Your task to perform on an android device: turn smart compose on in the gmail app Image 0: 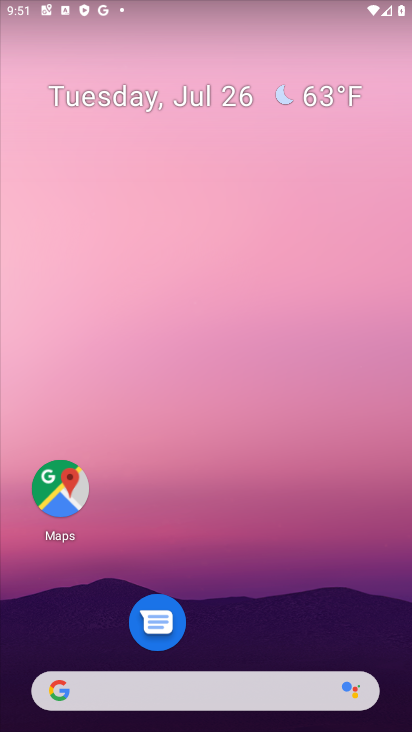
Step 0: drag from (245, 651) to (247, 247)
Your task to perform on an android device: turn smart compose on in the gmail app Image 1: 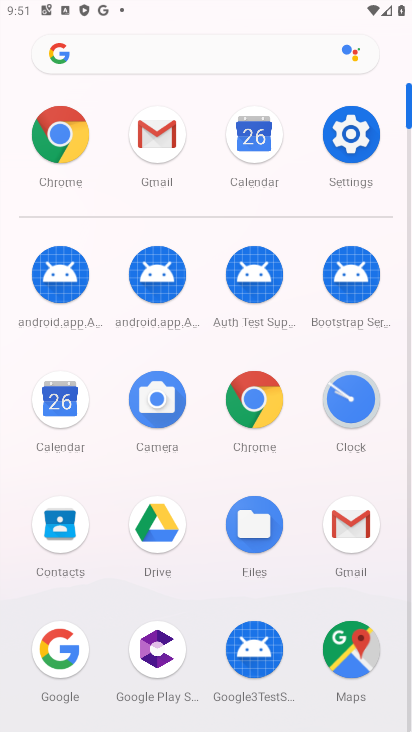
Step 1: click (166, 150)
Your task to perform on an android device: turn smart compose on in the gmail app Image 2: 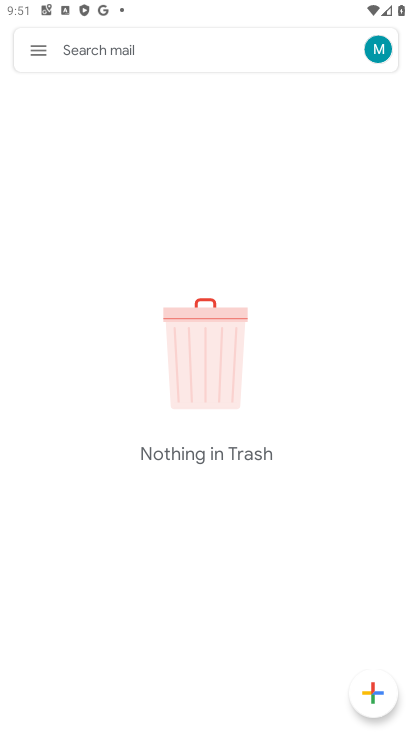
Step 2: click (35, 59)
Your task to perform on an android device: turn smart compose on in the gmail app Image 3: 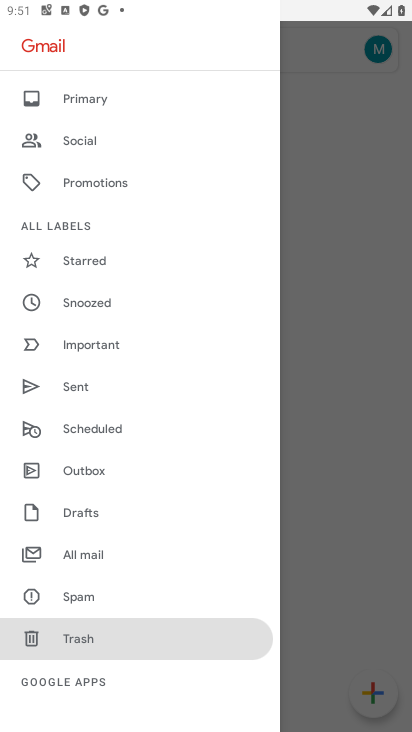
Step 3: drag from (153, 558) to (125, 115)
Your task to perform on an android device: turn smart compose on in the gmail app Image 4: 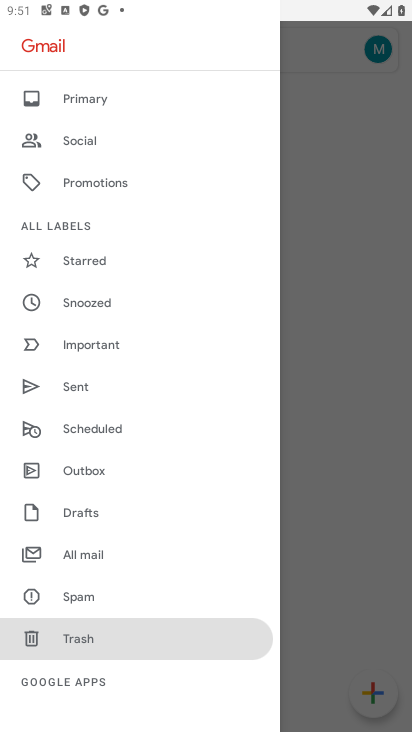
Step 4: drag from (129, 632) to (237, 185)
Your task to perform on an android device: turn smart compose on in the gmail app Image 5: 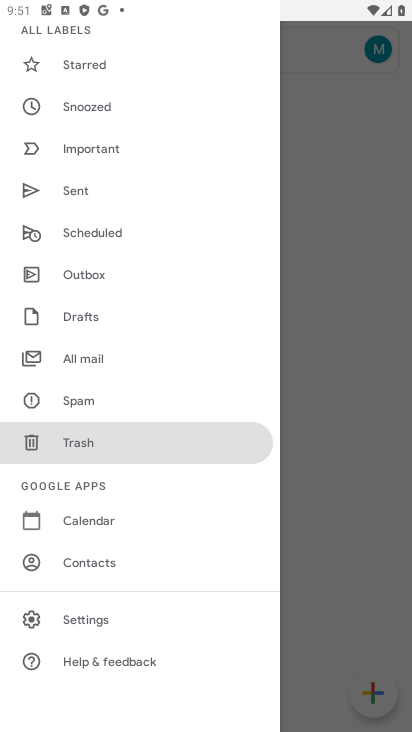
Step 5: click (82, 630)
Your task to perform on an android device: turn smart compose on in the gmail app Image 6: 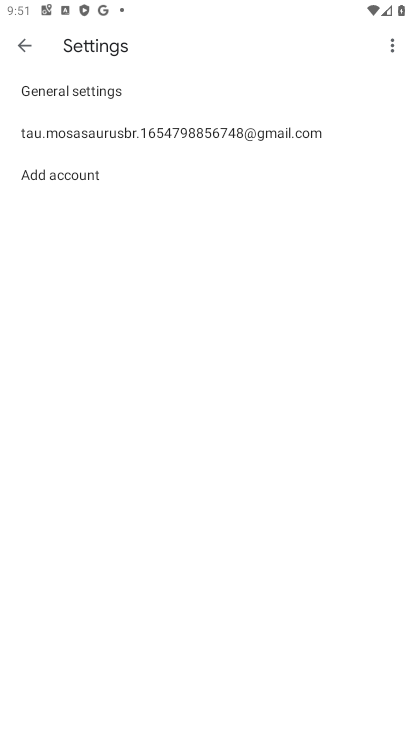
Step 6: click (170, 131)
Your task to perform on an android device: turn smart compose on in the gmail app Image 7: 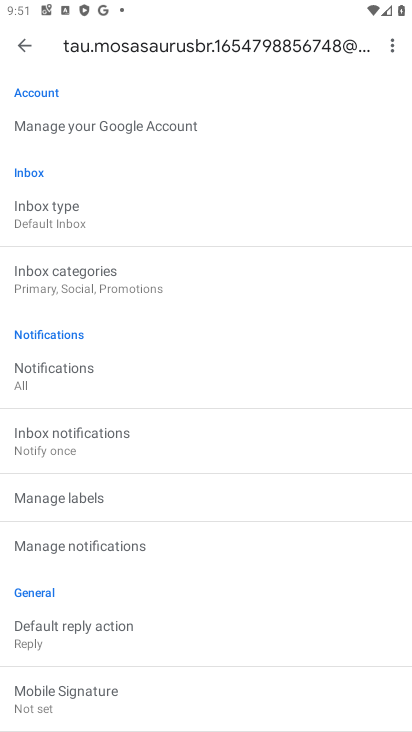
Step 7: task complete